Your task to perform on an android device: turn on the 24-hour format for clock Image 0: 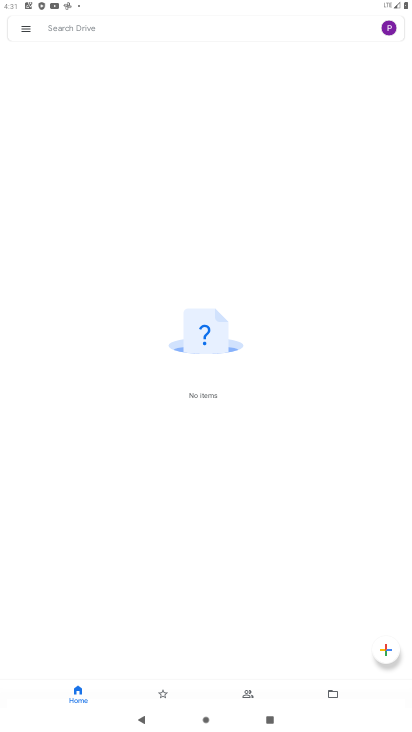
Step 0: press home button
Your task to perform on an android device: turn on the 24-hour format for clock Image 1: 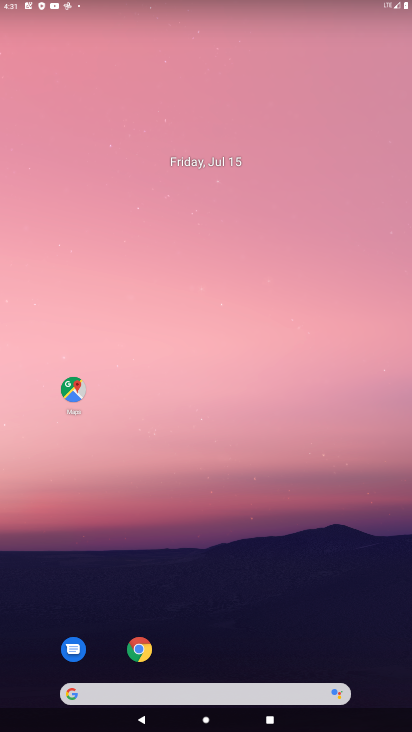
Step 1: drag from (292, 597) to (249, 128)
Your task to perform on an android device: turn on the 24-hour format for clock Image 2: 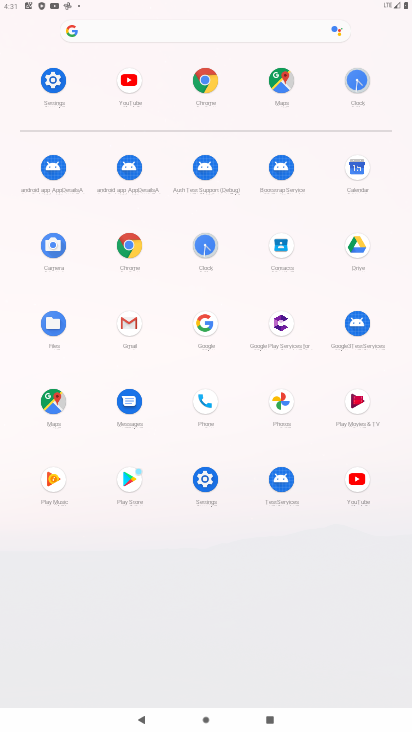
Step 2: click (210, 246)
Your task to perform on an android device: turn on the 24-hour format for clock Image 3: 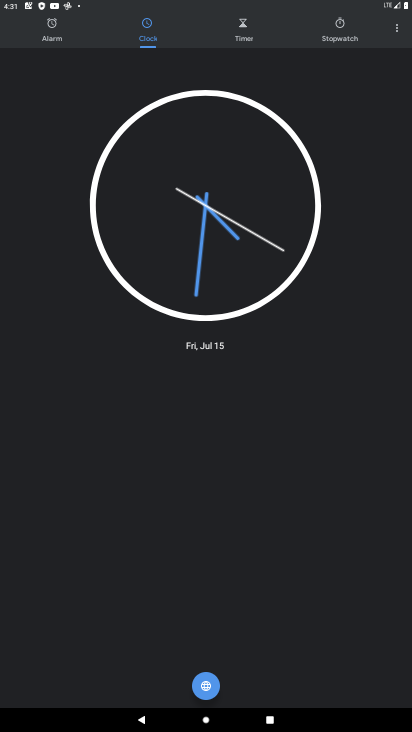
Step 3: click (395, 34)
Your task to perform on an android device: turn on the 24-hour format for clock Image 4: 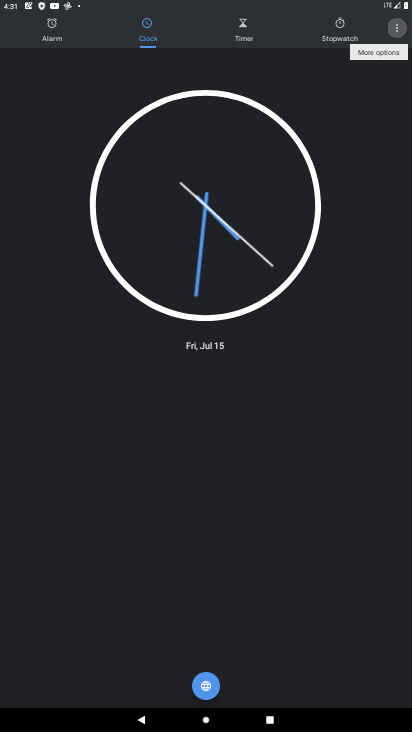
Step 4: click (395, 34)
Your task to perform on an android device: turn on the 24-hour format for clock Image 5: 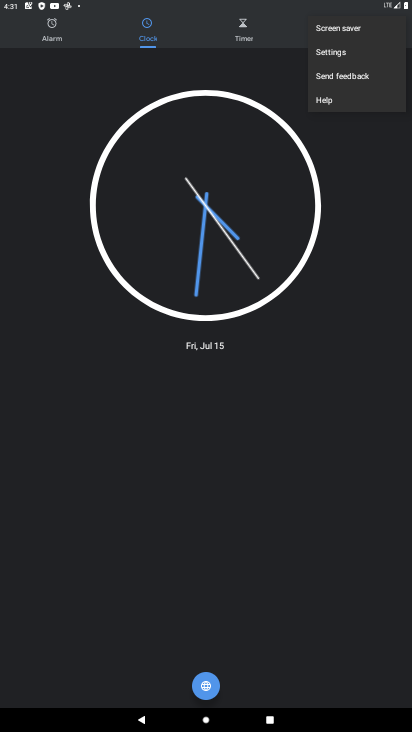
Step 5: click (330, 53)
Your task to perform on an android device: turn on the 24-hour format for clock Image 6: 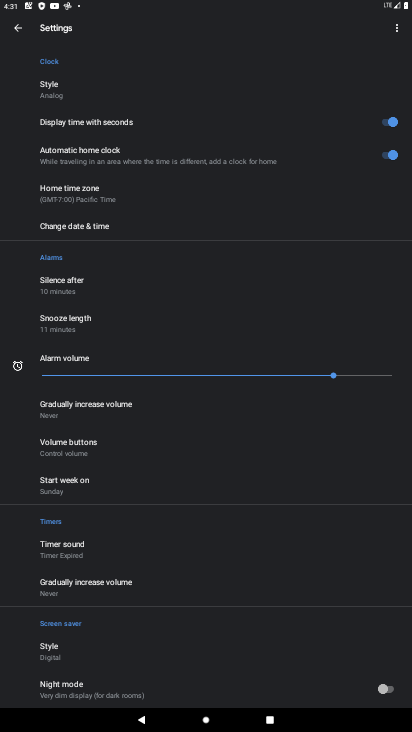
Step 6: click (111, 231)
Your task to perform on an android device: turn on the 24-hour format for clock Image 7: 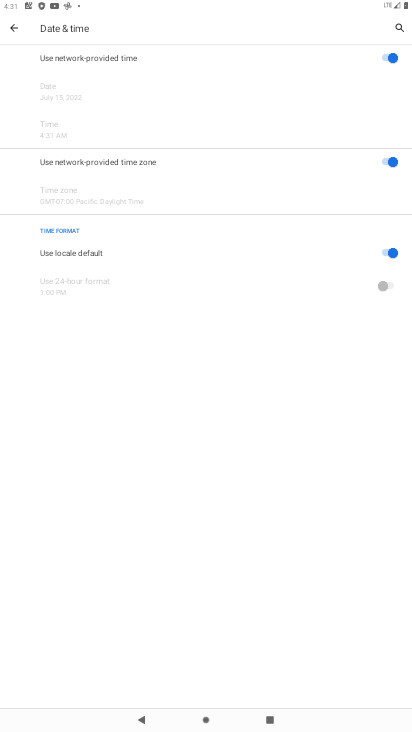
Step 7: click (387, 248)
Your task to perform on an android device: turn on the 24-hour format for clock Image 8: 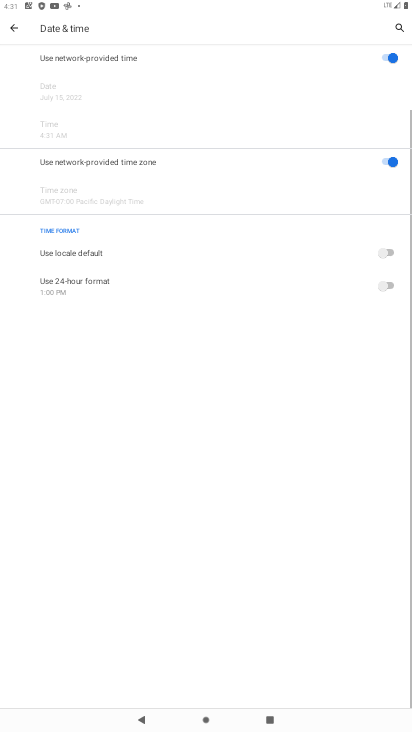
Step 8: click (380, 285)
Your task to perform on an android device: turn on the 24-hour format for clock Image 9: 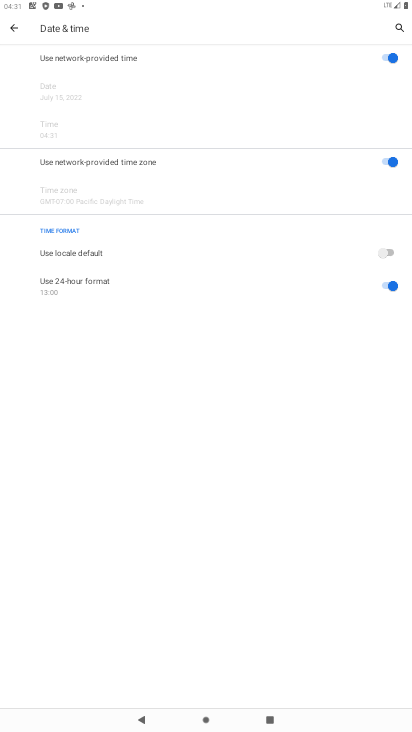
Step 9: task complete